Your task to perform on an android device: open chrome privacy settings Image 0: 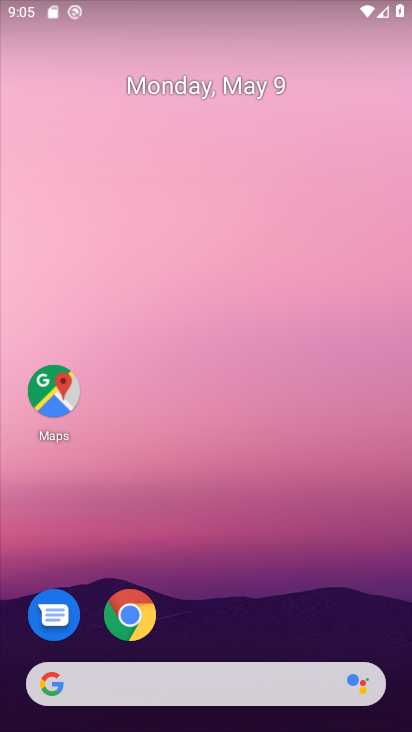
Step 0: drag from (269, 711) to (400, 252)
Your task to perform on an android device: open chrome privacy settings Image 1: 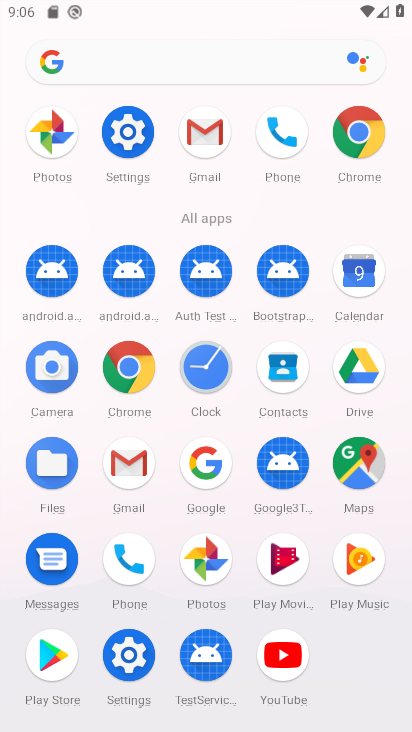
Step 1: click (125, 371)
Your task to perform on an android device: open chrome privacy settings Image 2: 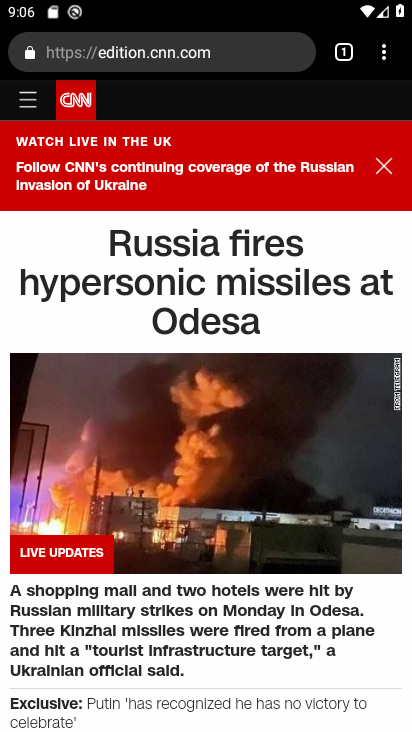
Step 2: click (386, 68)
Your task to perform on an android device: open chrome privacy settings Image 3: 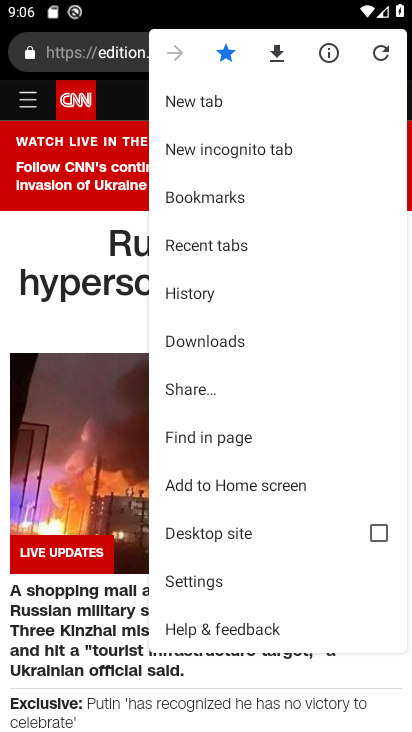
Step 3: click (190, 583)
Your task to perform on an android device: open chrome privacy settings Image 4: 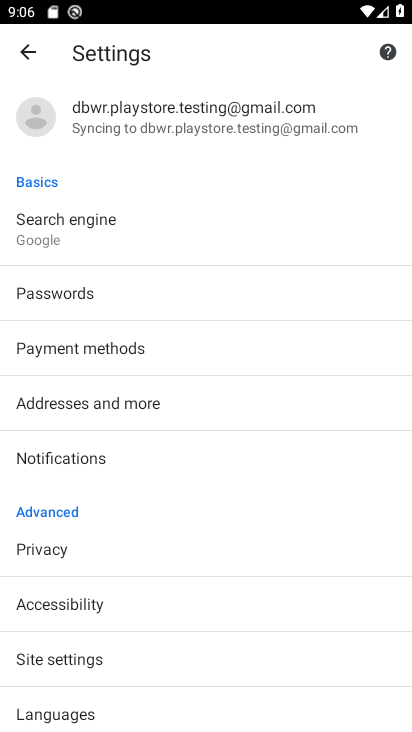
Step 4: click (111, 547)
Your task to perform on an android device: open chrome privacy settings Image 5: 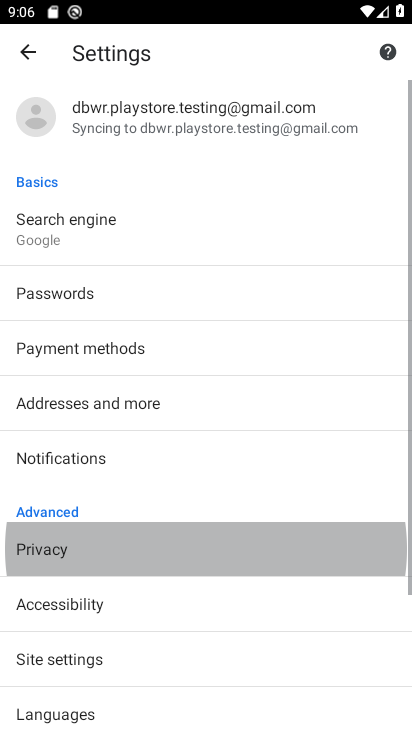
Step 5: click (45, 549)
Your task to perform on an android device: open chrome privacy settings Image 6: 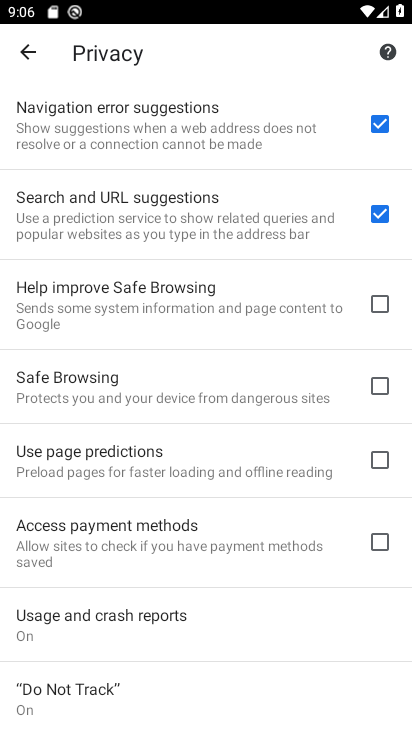
Step 6: task complete